Your task to perform on an android device: read, delete, or share a saved page in the chrome app Image 0: 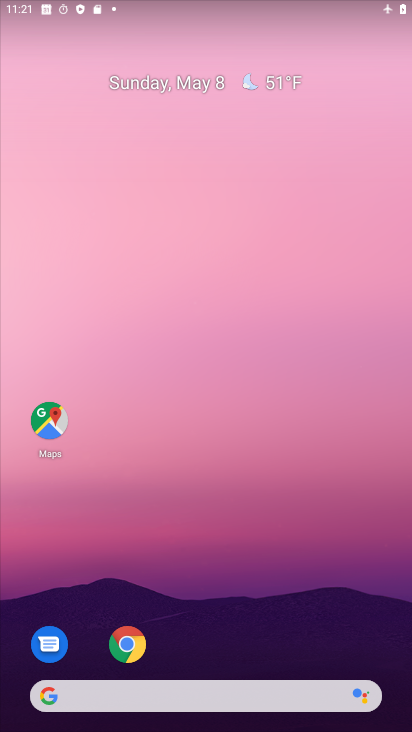
Step 0: drag from (205, 638) to (214, 174)
Your task to perform on an android device: read, delete, or share a saved page in the chrome app Image 1: 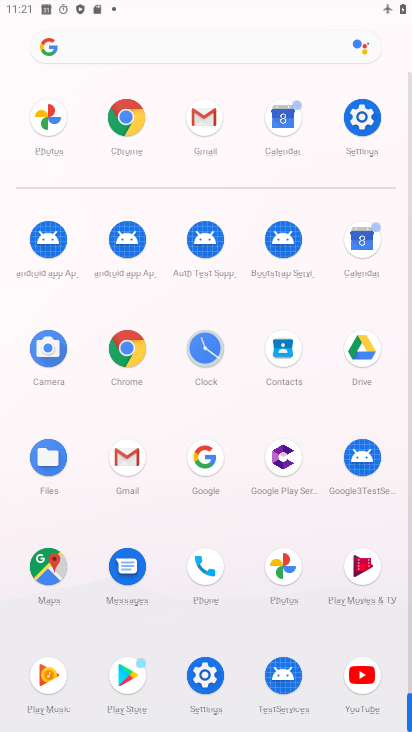
Step 1: click (121, 350)
Your task to perform on an android device: read, delete, or share a saved page in the chrome app Image 2: 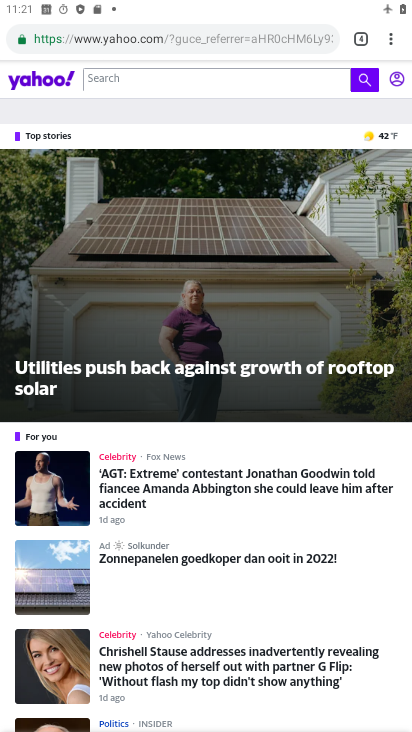
Step 2: click (389, 39)
Your task to perform on an android device: read, delete, or share a saved page in the chrome app Image 3: 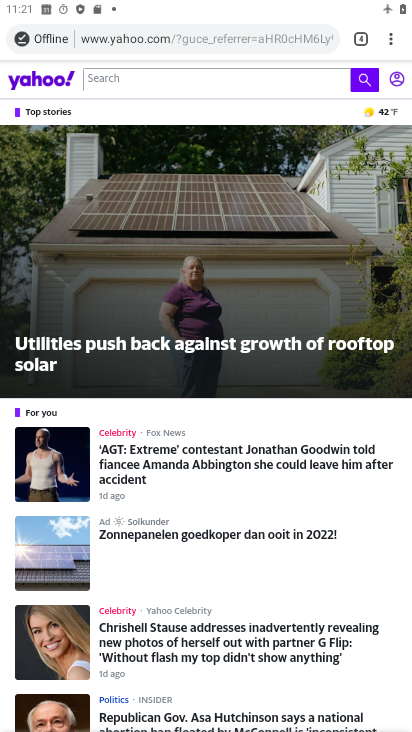
Step 3: click (392, 39)
Your task to perform on an android device: read, delete, or share a saved page in the chrome app Image 4: 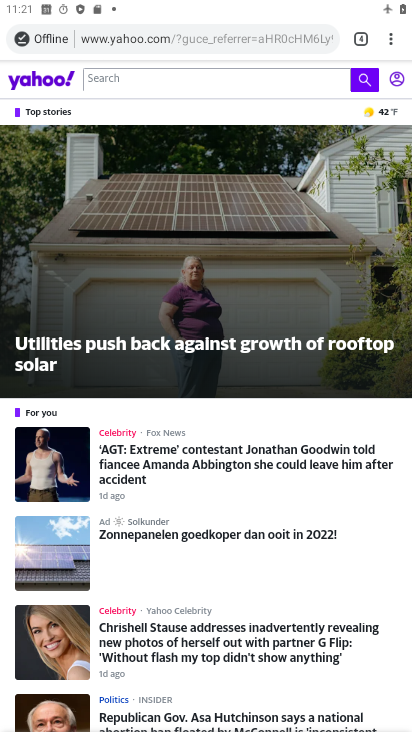
Step 4: drag from (388, 46) to (265, 194)
Your task to perform on an android device: read, delete, or share a saved page in the chrome app Image 5: 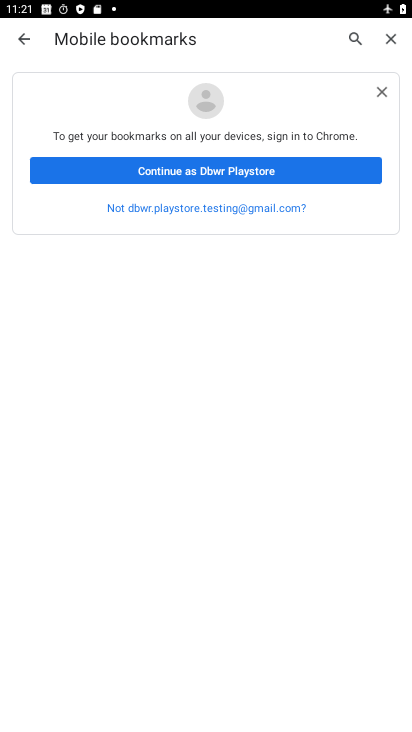
Step 5: click (383, 88)
Your task to perform on an android device: read, delete, or share a saved page in the chrome app Image 6: 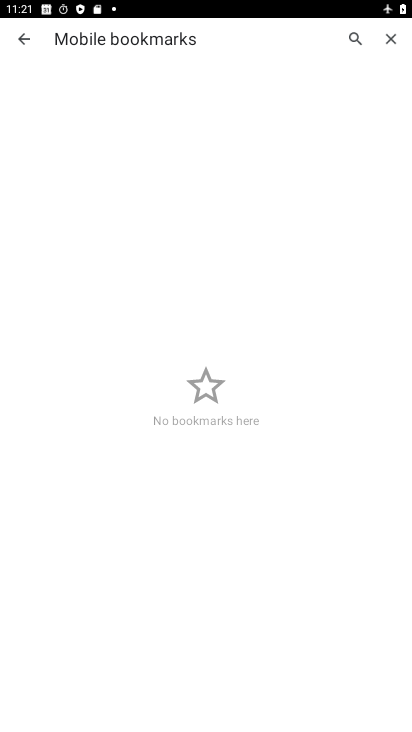
Step 6: task complete